Your task to perform on an android device: show emergency info Image 0: 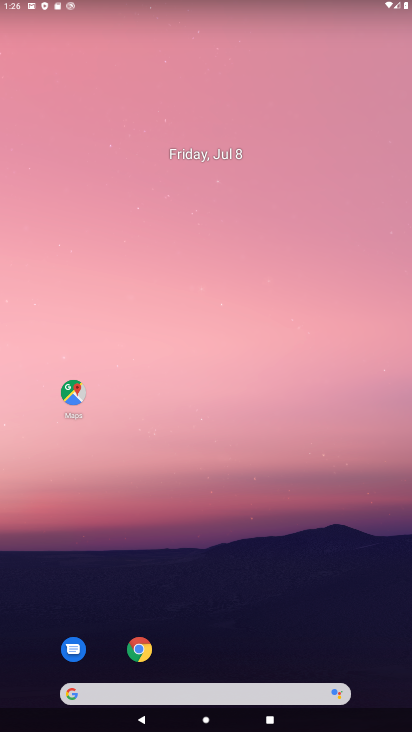
Step 0: drag from (293, 586) to (241, 4)
Your task to perform on an android device: show emergency info Image 1: 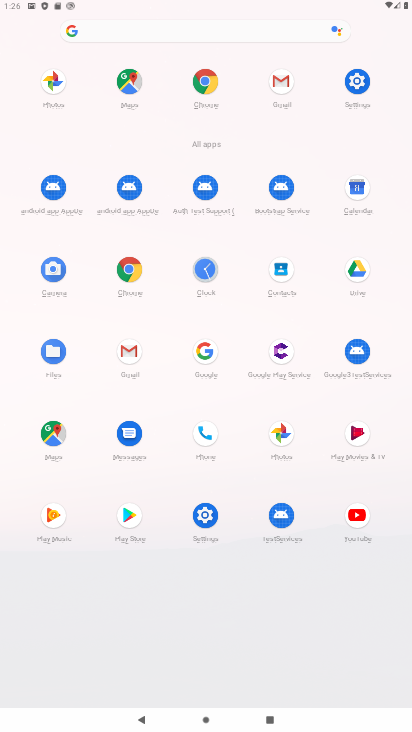
Step 1: click (356, 74)
Your task to perform on an android device: show emergency info Image 2: 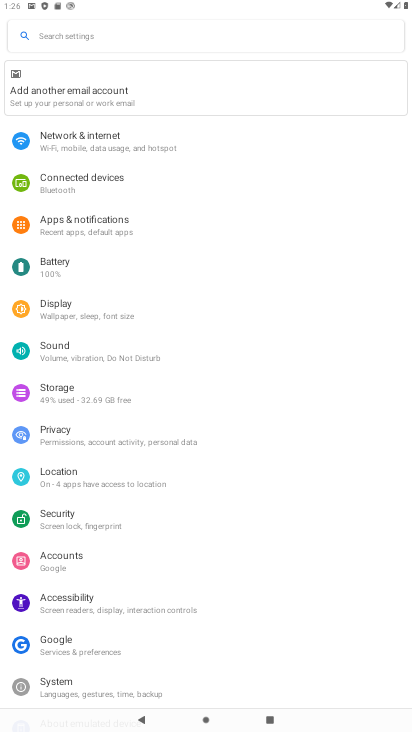
Step 2: drag from (194, 608) to (210, 202)
Your task to perform on an android device: show emergency info Image 3: 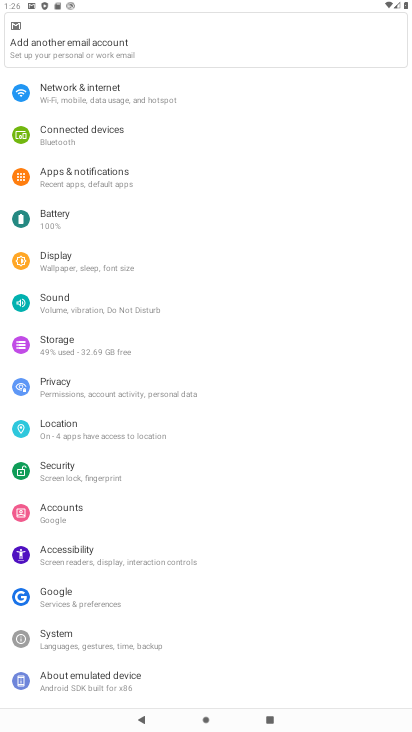
Step 3: click (113, 680)
Your task to perform on an android device: show emergency info Image 4: 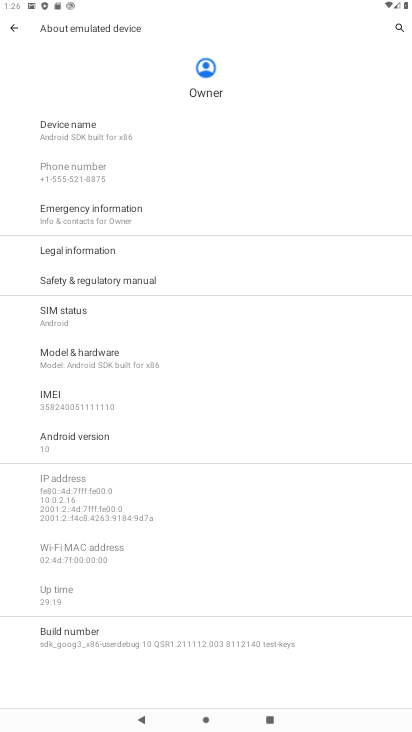
Step 4: click (115, 221)
Your task to perform on an android device: show emergency info Image 5: 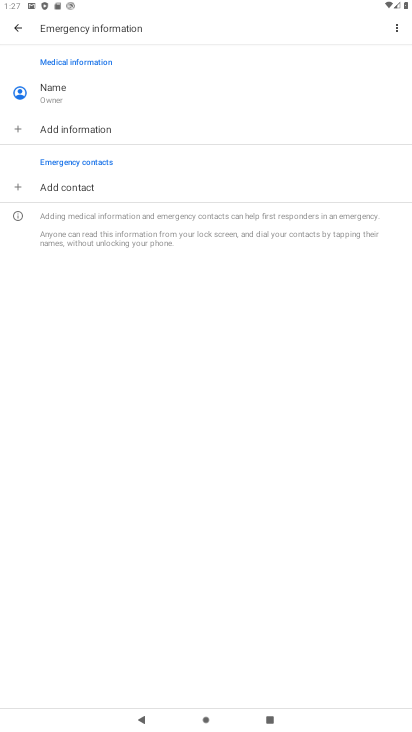
Step 5: task complete